Your task to perform on an android device: turn on location history Image 0: 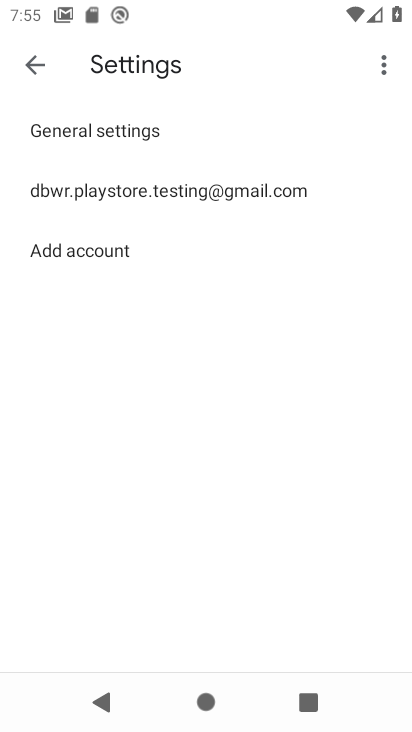
Step 0: press home button
Your task to perform on an android device: turn on location history Image 1: 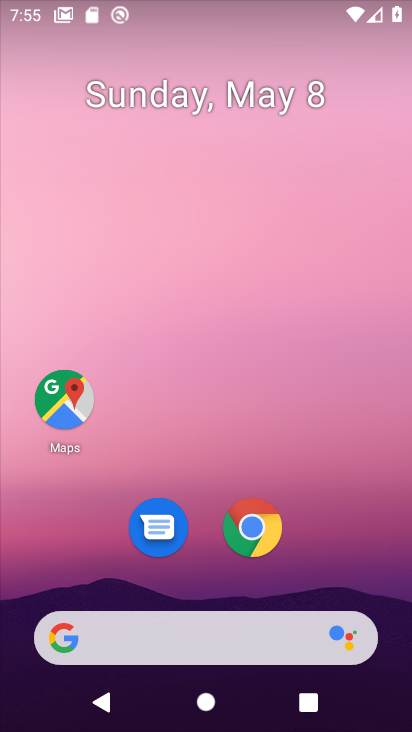
Step 1: drag from (318, 571) to (400, 137)
Your task to perform on an android device: turn on location history Image 2: 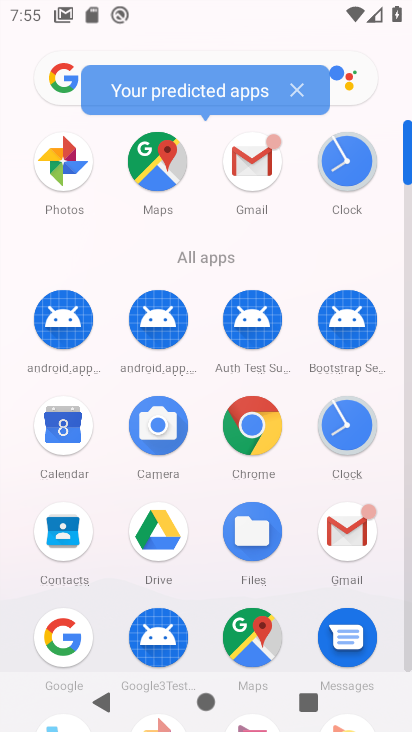
Step 2: click (400, 137)
Your task to perform on an android device: turn on location history Image 3: 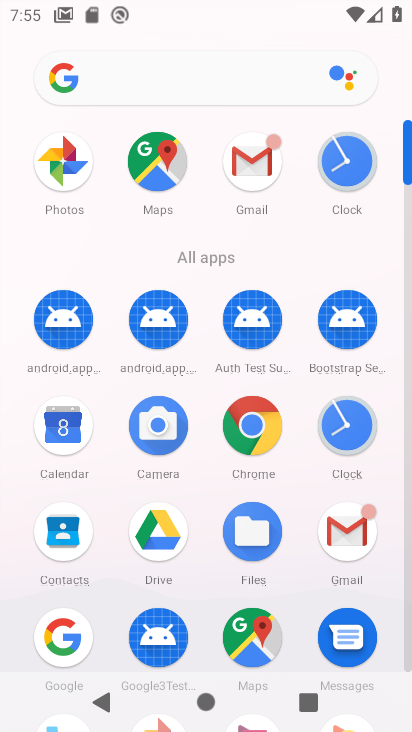
Step 3: click (168, 160)
Your task to perform on an android device: turn on location history Image 4: 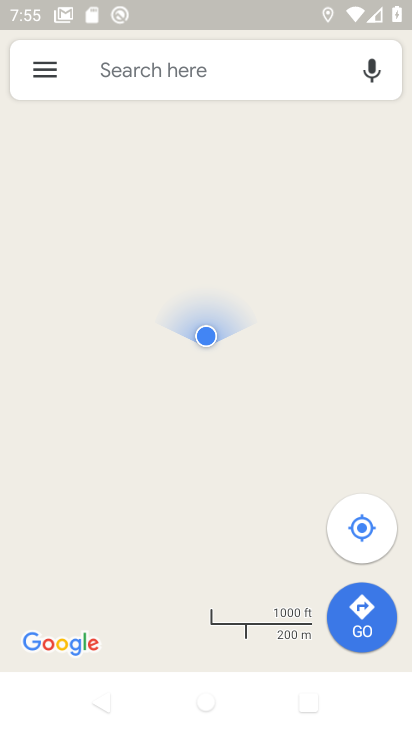
Step 4: click (42, 65)
Your task to perform on an android device: turn on location history Image 5: 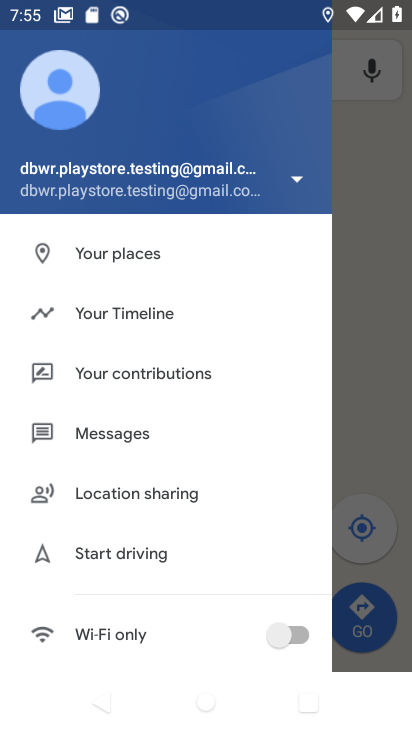
Step 5: click (135, 314)
Your task to perform on an android device: turn on location history Image 6: 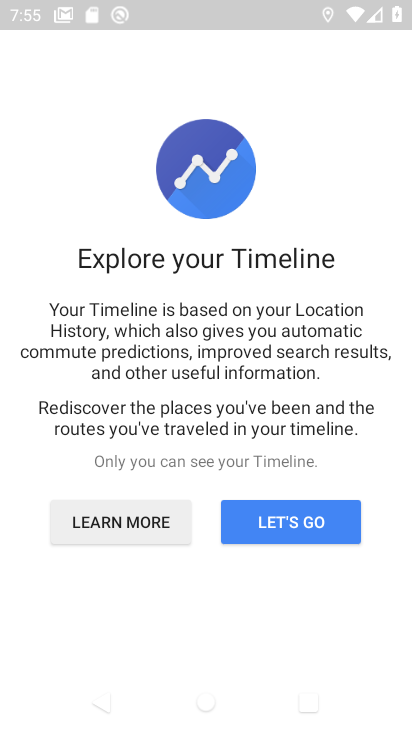
Step 6: click (278, 517)
Your task to perform on an android device: turn on location history Image 7: 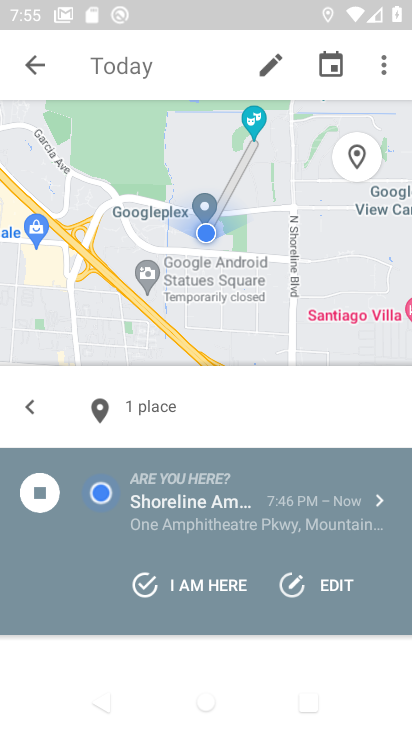
Step 7: click (387, 63)
Your task to perform on an android device: turn on location history Image 8: 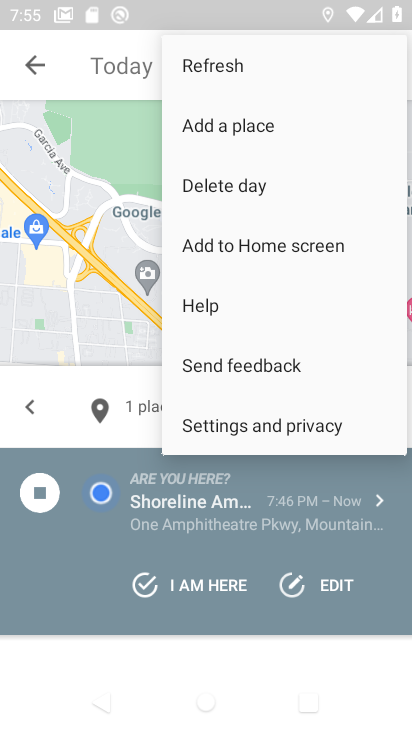
Step 8: click (304, 438)
Your task to perform on an android device: turn on location history Image 9: 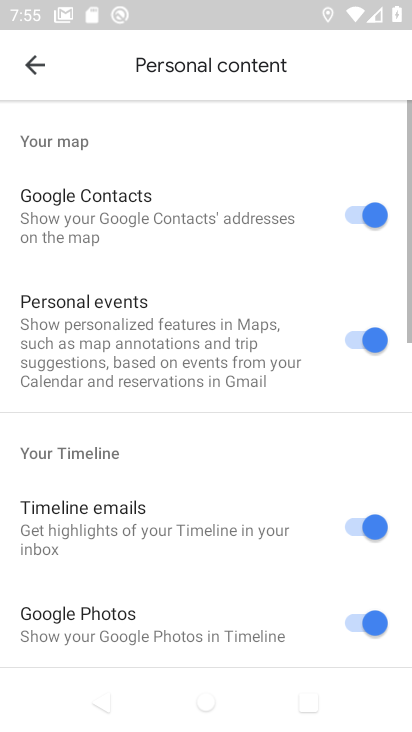
Step 9: task complete